Your task to perform on an android device: open app "NewsBreak: Local News & Alerts" Image 0: 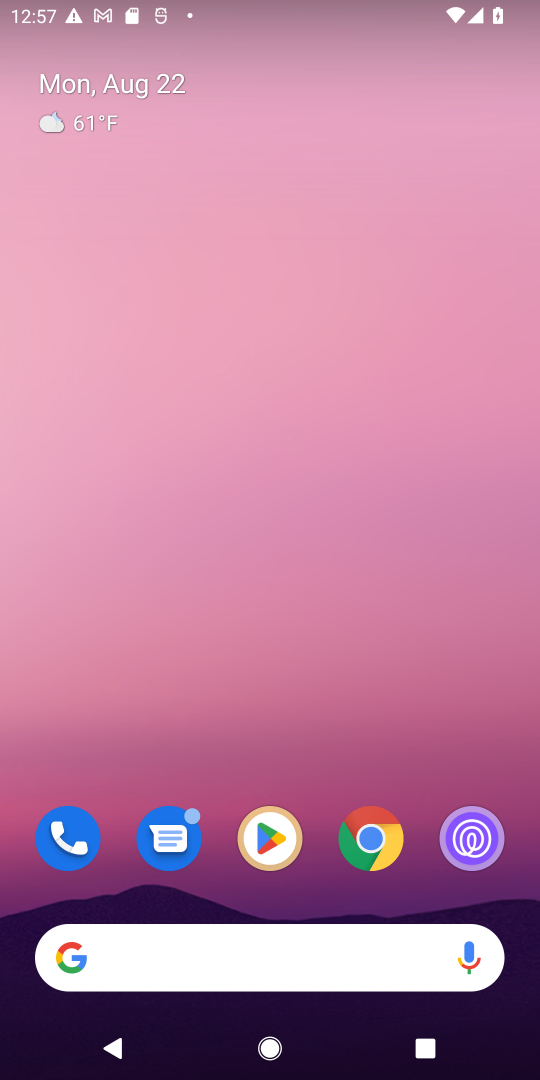
Step 0: drag from (227, 916) to (302, 52)
Your task to perform on an android device: open app "NewsBreak: Local News & Alerts" Image 1: 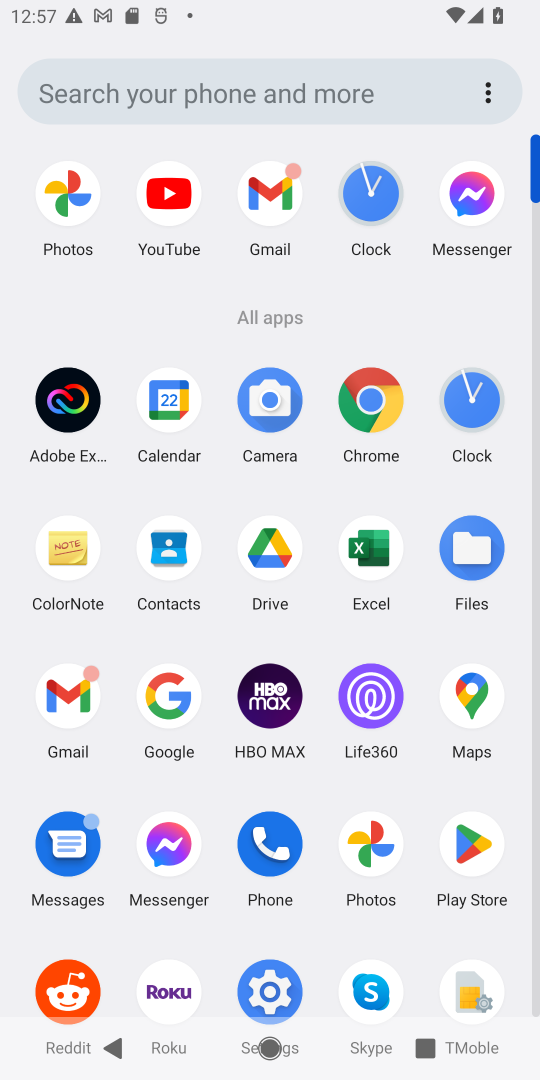
Step 1: click (476, 859)
Your task to perform on an android device: open app "NewsBreak: Local News & Alerts" Image 2: 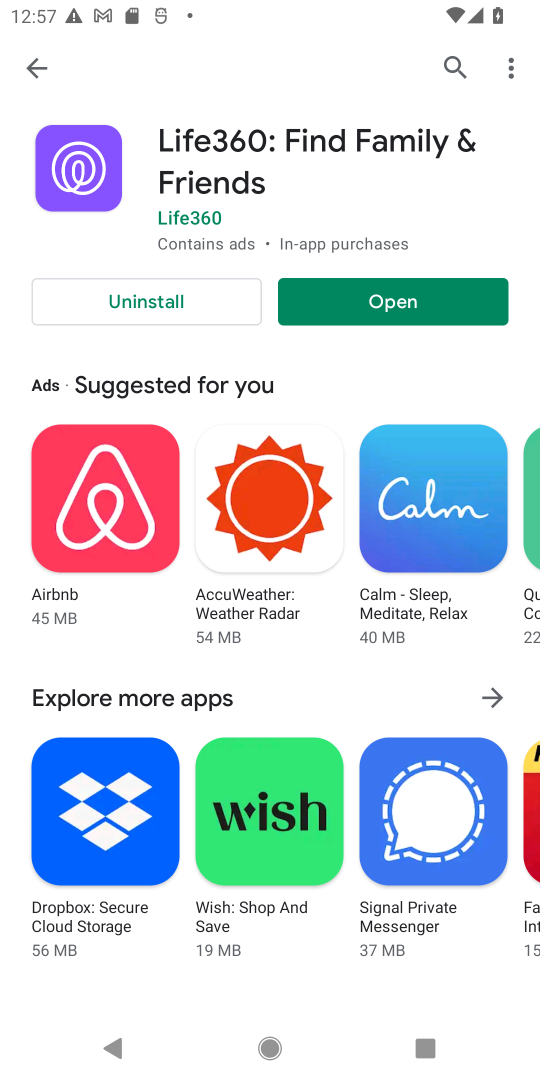
Step 2: click (441, 69)
Your task to perform on an android device: open app "NewsBreak: Local News & Alerts" Image 3: 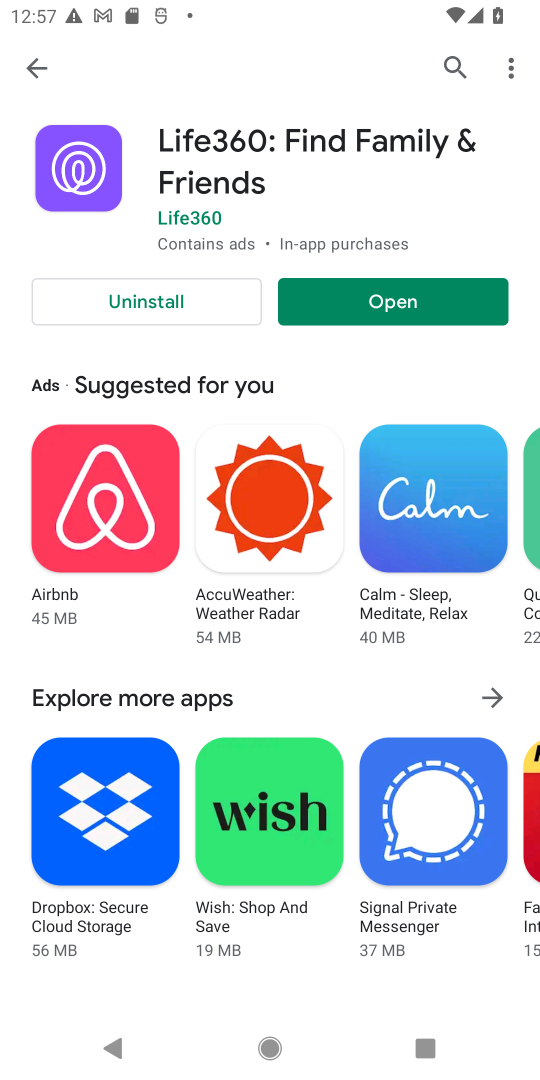
Step 3: click (446, 74)
Your task to perform on an android device: open app "NewsBreak: Local News & Alerts" Image 4: 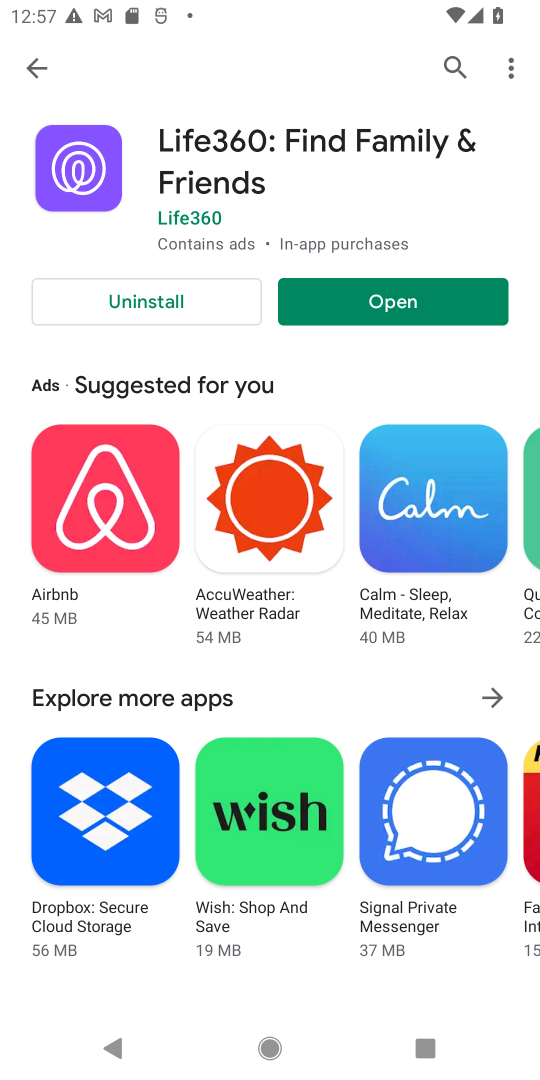
Step 4: click (443, 62)
Your task to perform on an android device: open app "NewsBreak: Local News & Alerts" Image 5: 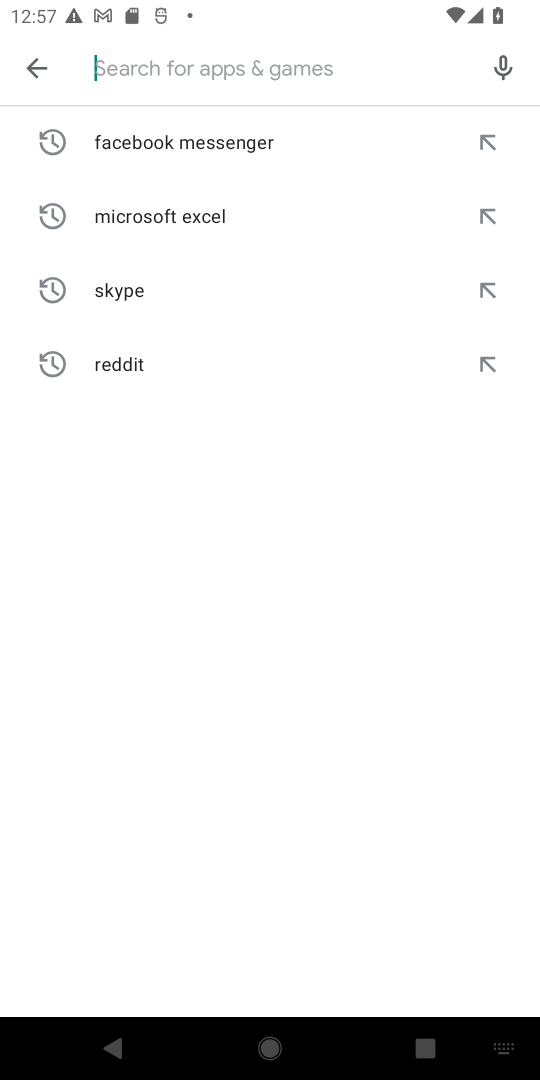
Step 5: type "NewsBreak: Local News & Alerts"
Your task to perform on an android device: open app "NewsBreak: Local News & Alerts" Image 6: 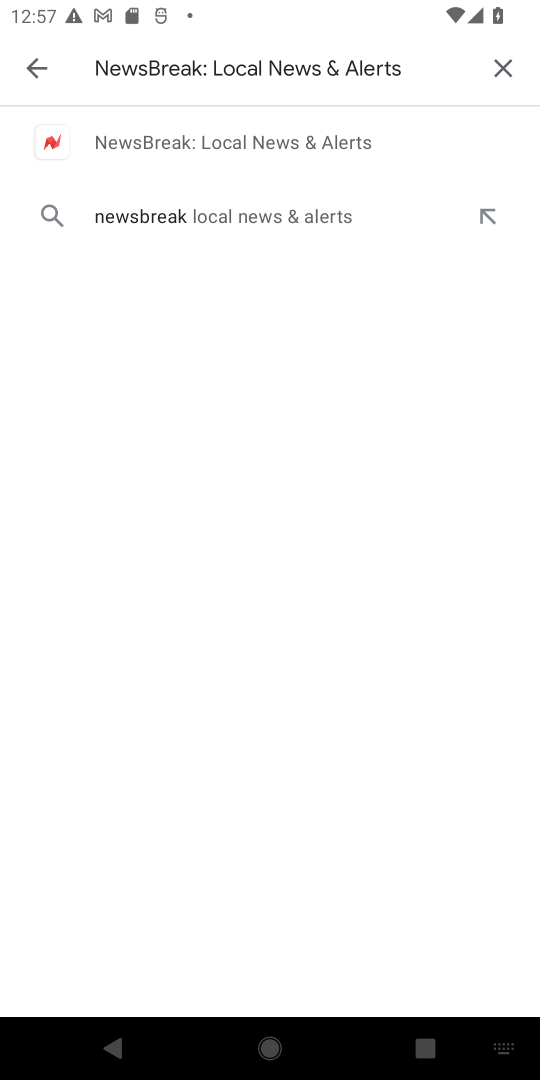
Step 6: click (208, 135)
Your task to perform on an android device: open app "NewsBreak: Local News & Alerts" Image 7: 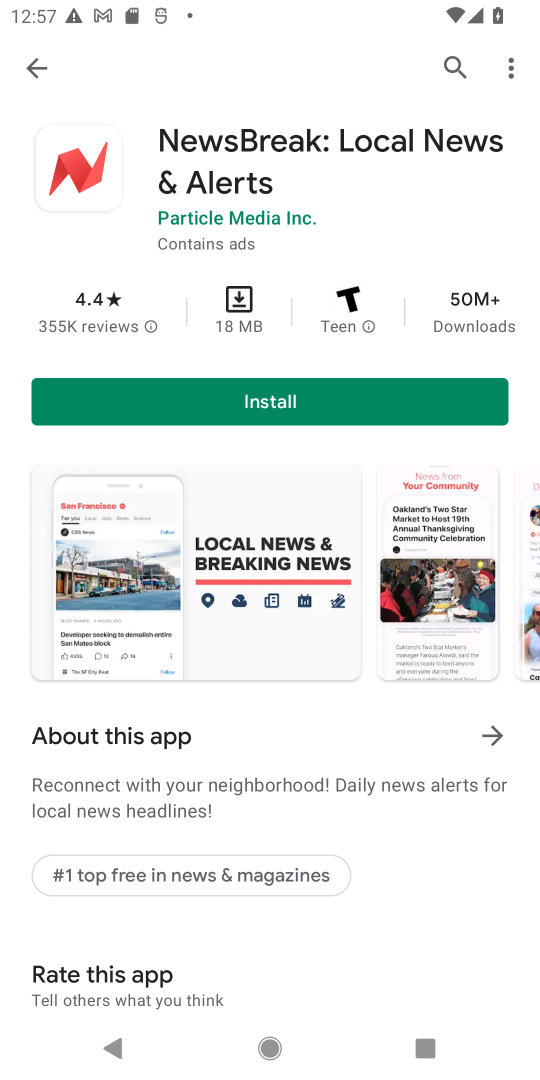
Step 7: click (245, 411)
Your task to perform on an android device: open app "NewsBreak: Local News & Alerts" Image 8: 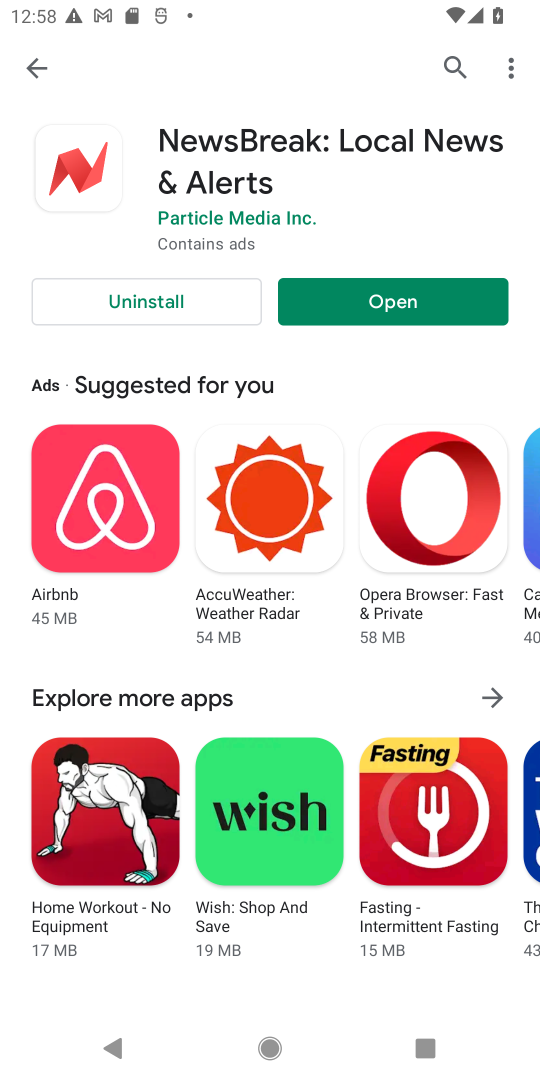
Step 8: click (432, 313)
Your task to perform on an android device: open app "NewsBreak: Local News & Alerts" Image 9: 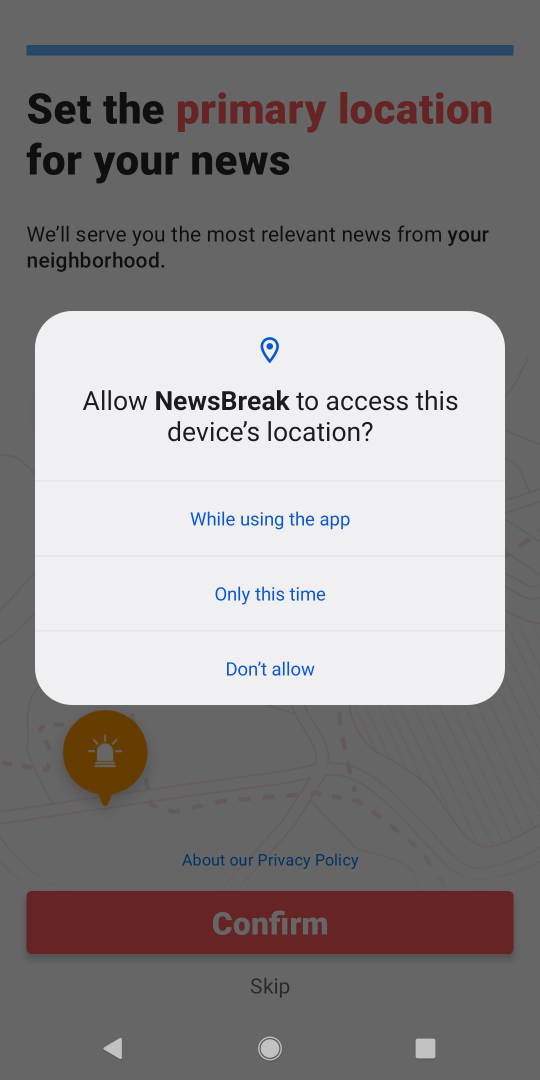
Step 9: task complete